Your task to perform on an android device: move a message to another label in the gmail app Image 0: 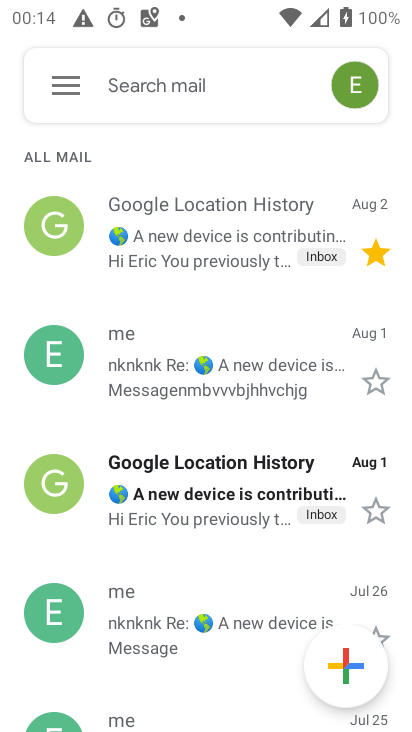
Step 0: click (55, 74)
Your task to perform on an android device: move a message to another label in the gmail app Image 1: 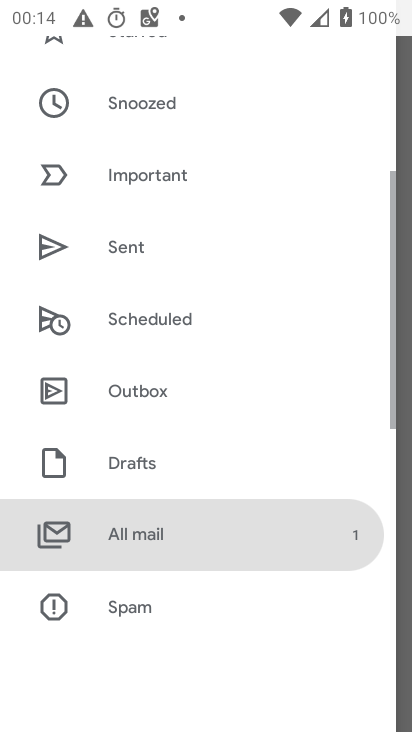
Step 1: click (385, 379)
Your task to perform on an android device: move a message to another label in the gmail app Image 2: 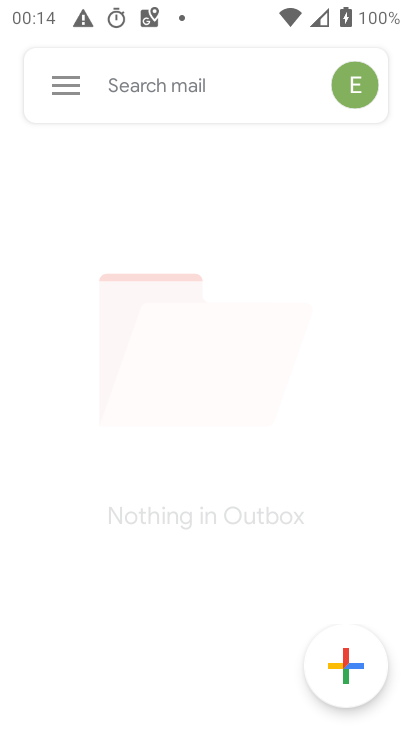
Step 2: click (396, 388)
Your task to perform on an android device: move a message to another label in the gmail app Image 3: 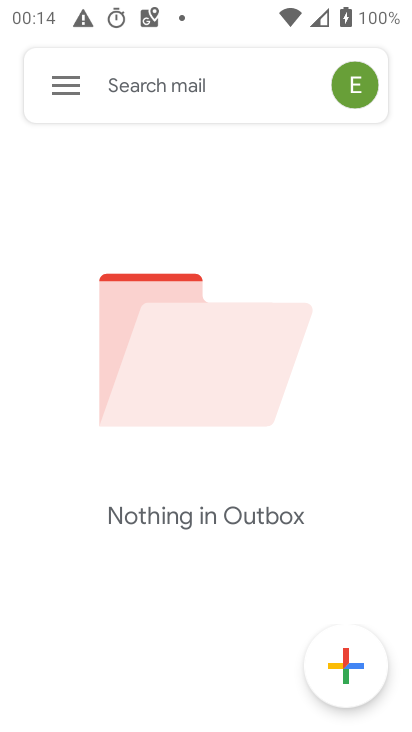
Step 3: task complete